Your task to perform on an android device: find snoozed emails in the gmail app Image 0: 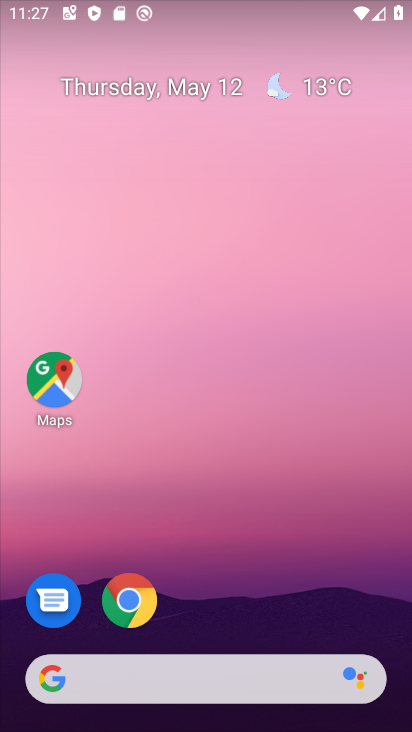
Step 0: drag from (387, 637) to (271, 154)
Your task to perform on an android device: find snoozed emails in the gmail app Image 1: 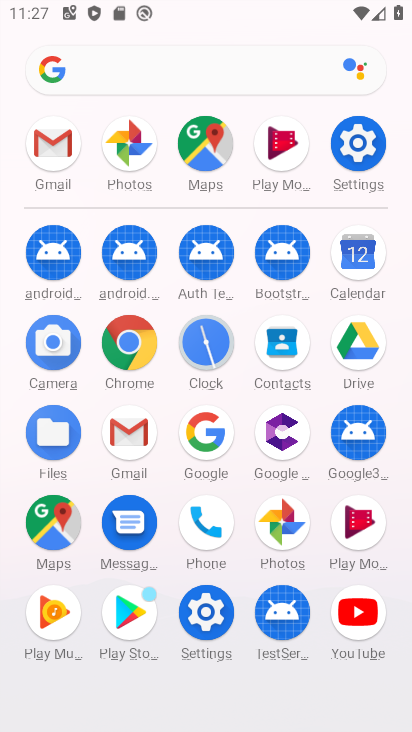
Step 1: click (126, 428)
Your task to perform on an android device: find snoozed emails in the gmail app Image 2: 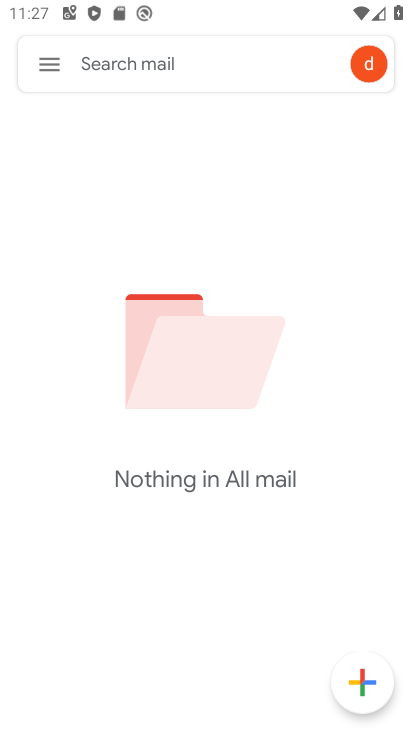
Step 2: click (52, 63)
Your task to perform on an android device: find snoozed emails in the gmail app Image 3: 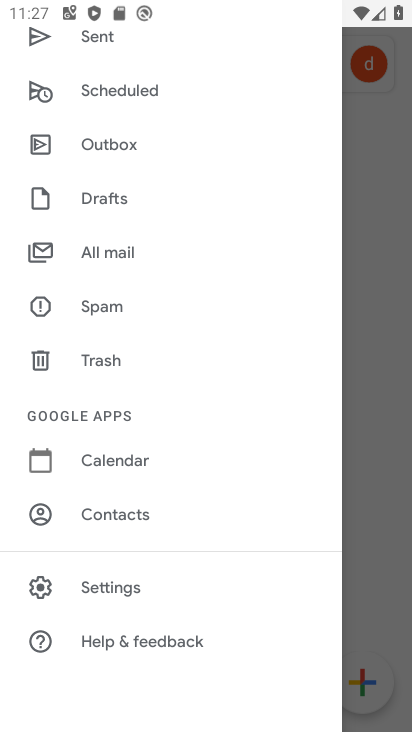
Step 3: drag from (215, 193) to (187, 550)
Your task to perform on an android device: find snoozed emails in the gmail app Image 4: 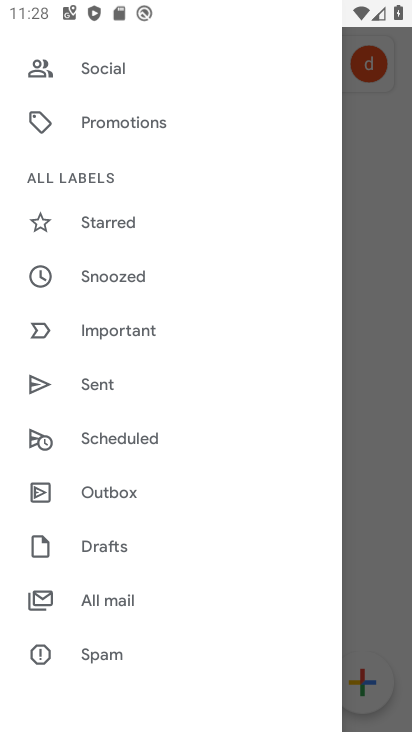
Step 4: click (113, 273)
Your task to perform on an android device: find snoozed emails in the gmail app Image 5: 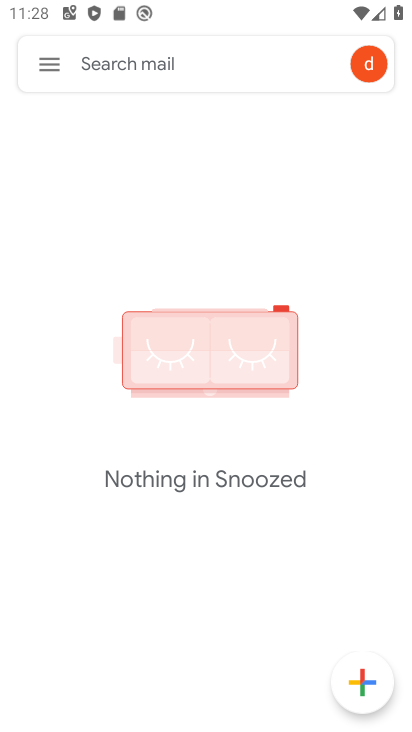
Step 5: task complete